Your task to perform on an android device: Turn off the flashlight Image 0: 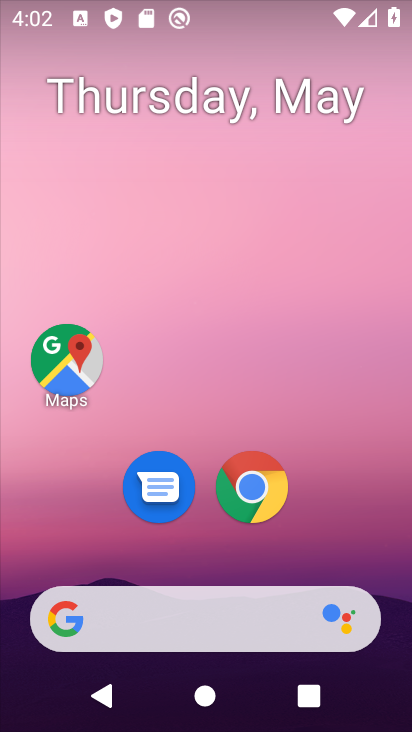
Step 0: drag from (4, 419) to (392, 473)
Your task to perform on an android device: Turn off the flashlight Image 1: 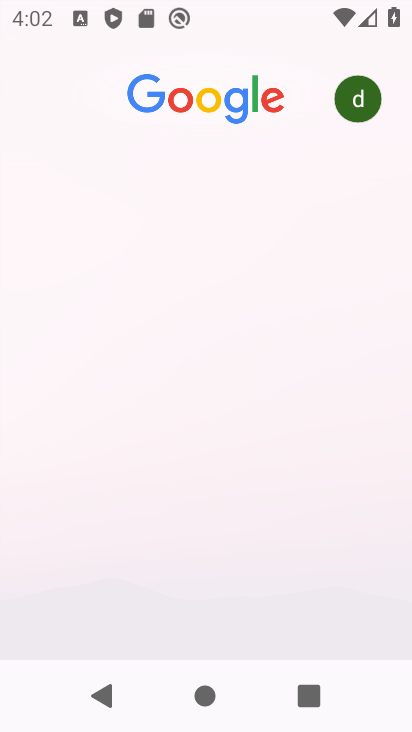
Step 1: task complete